Your task to perform on an android device: turn on translation in the chrome app Image 0: 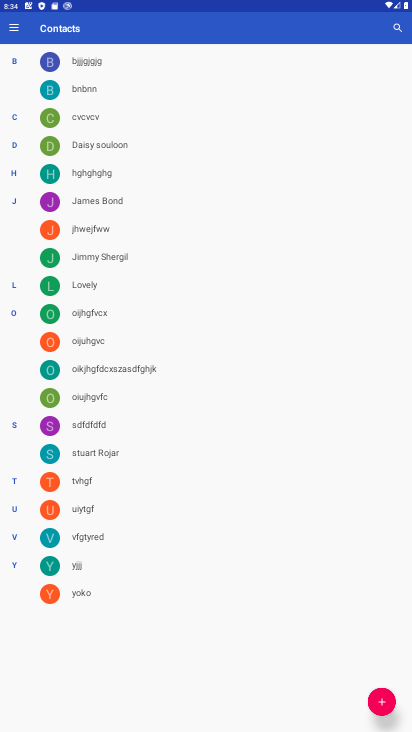
Step 0: press home button
Your task to perform on an android device: turn on translation in the chrome app Image 1: 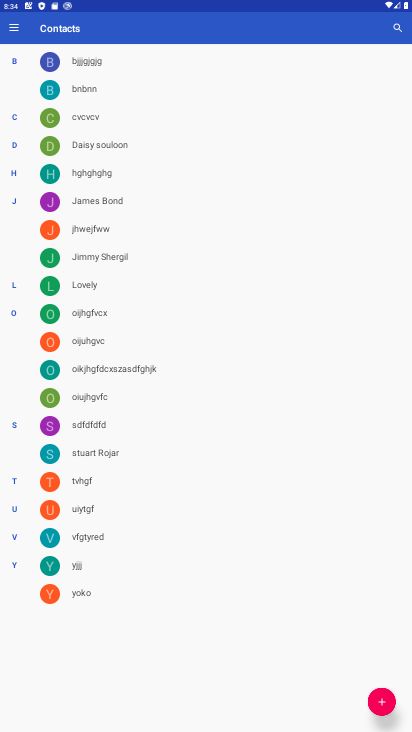
Step 1: press home button
Your task to perform on an android device: turn on translation in the chrome app Image 2: 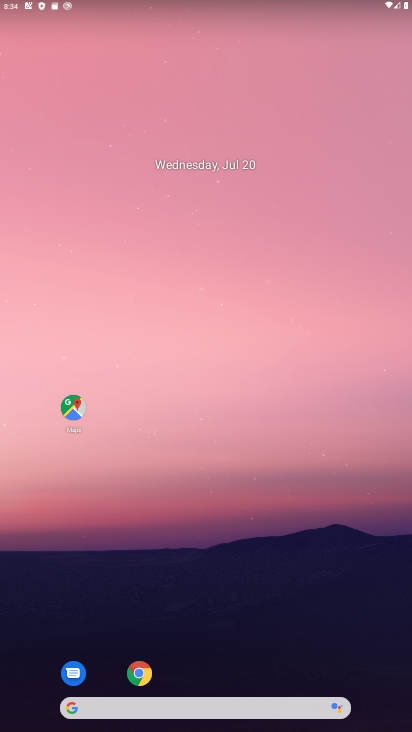
Step 2: drag from (180, 642) to (205, 41)
Your task to perform on an android device: turn on translation in the chrome app Image 3: 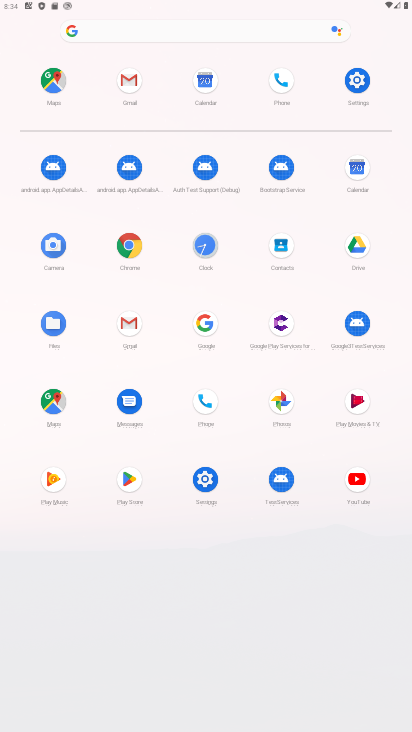
Step 3: click (127, 242)
Your task to perform on an android device: turn on translation in the chrome app Image 4: 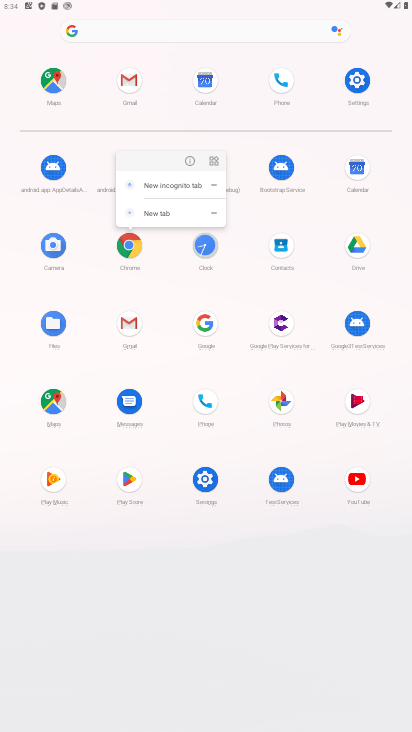
Step 4: click (184, 162)
Your task to perform on an android device: turn on translation in the chrome app Image 5: 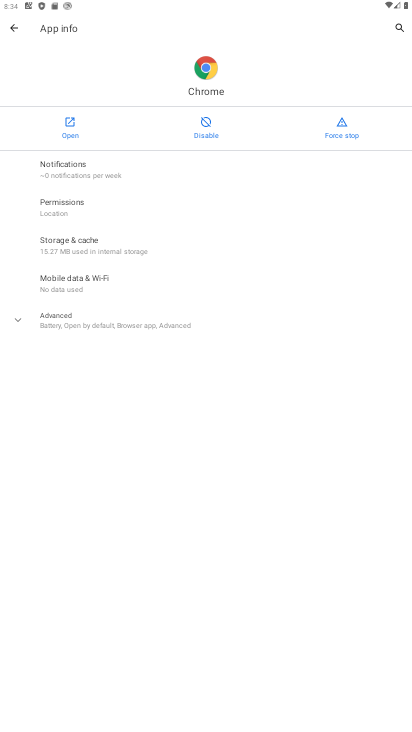
Step 5: click (67, 139)
Your task to perform on an android device: turn on translation in the chrome app Image 6: 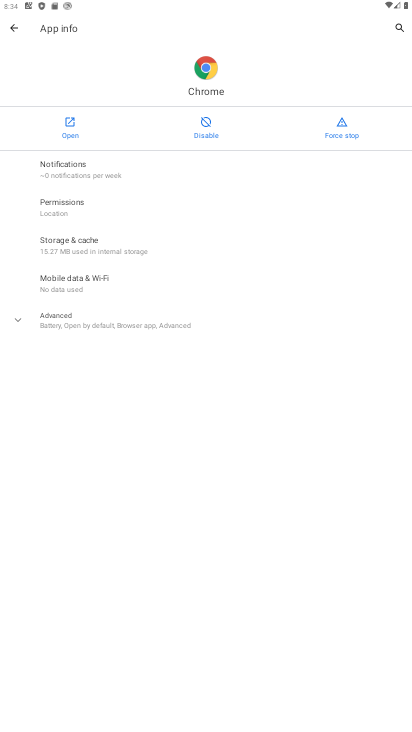
Step 6: click (67, 137)
Your task to perform on an android device: turn on translation in the chrome app Image 7: 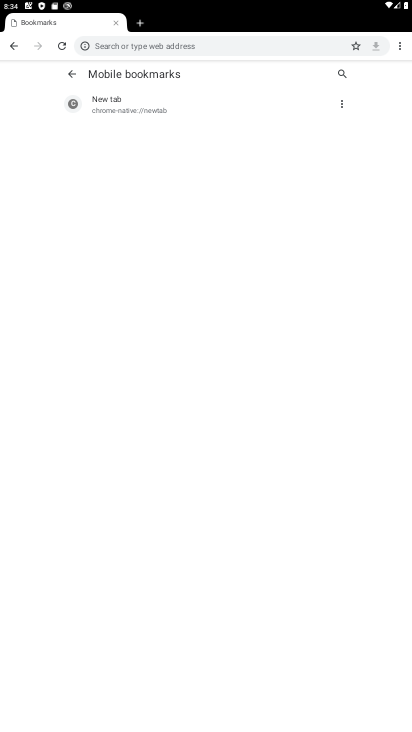
Step 7: drag from (397, 45) to (326, 209)
Your task to perform on an android device: turn on translation in the chrome app Image 8: 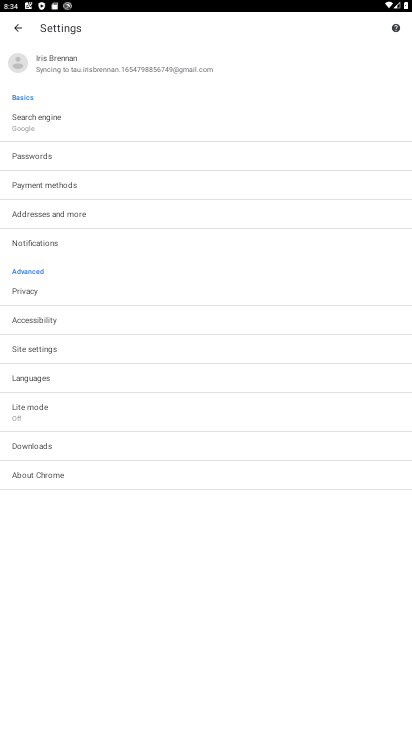
Step 8: click (52, 373)
Your task to perform on an android device: turn on translation in the chrome app Image 9: 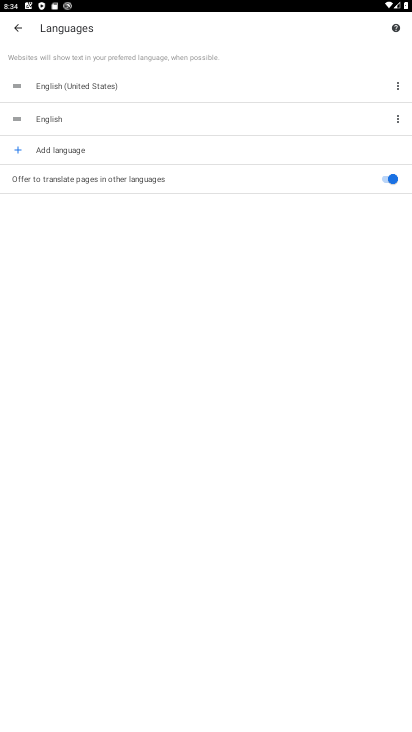
Step 9: task complete